Your task to perform on an android device: turn on improve location accuracy Image 0: 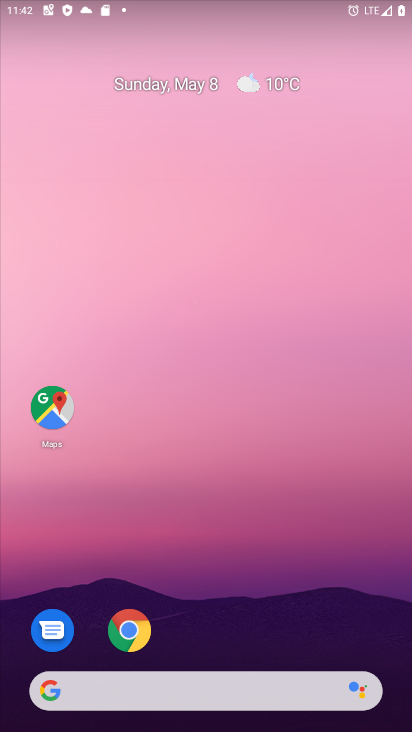
Step 0: drag from (343, 603) to (153, 28)
Your task to perform on an android device: turn on improve location accuracy Image 1: 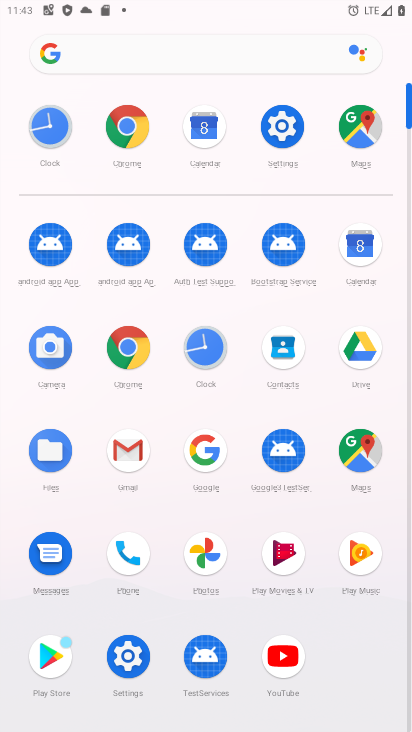
Step 1: click (292, 129)
Your task to perform on an android device: turn on improve location accuracy Image 2: 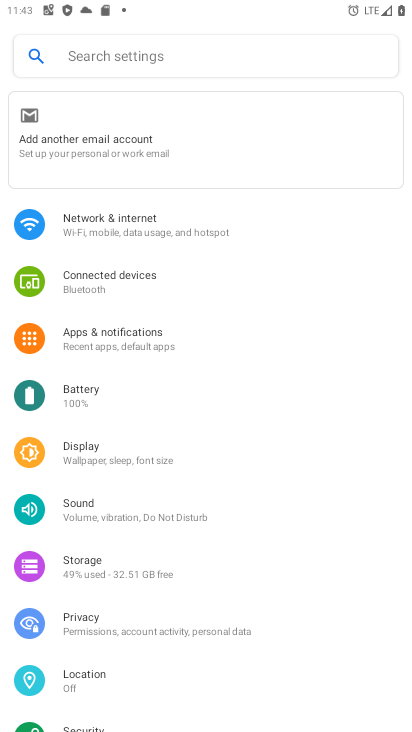
Step 2: click (138, 683)
Your task to perform on an android device: turn on improve location accuracy Image 3: 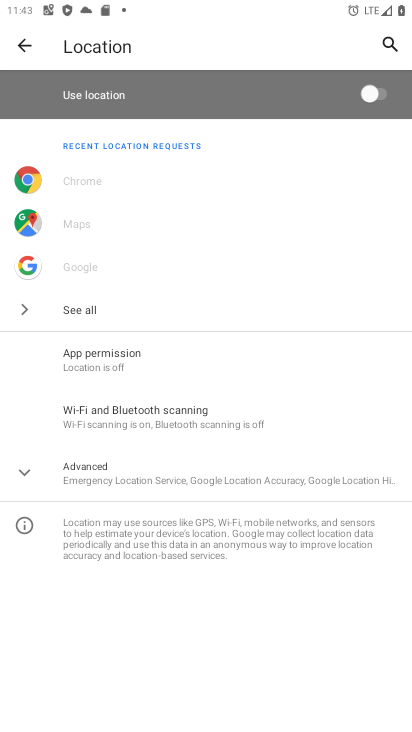
Step 3: click (74, 469)
Your task to perform on an android device: turn on improve location accuracy Image 4: 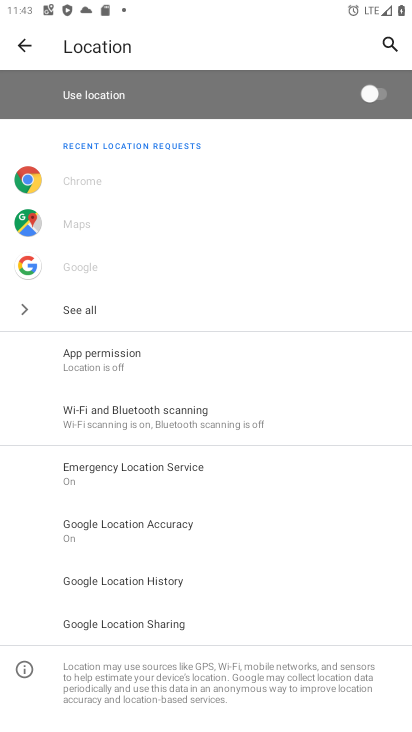
Step 4: click (147, 538)
Your task to perform on an android device: turn on improve location accuracy Image 5: 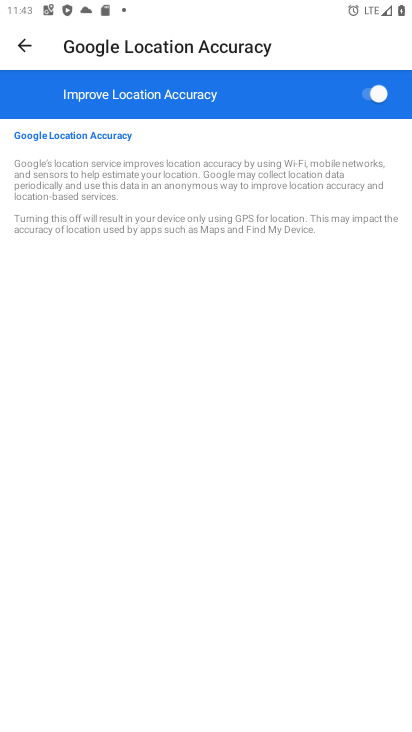
Step 5: task complete